Your task to perform on an android device: Open calendar and show me the fourth week of next month Image 0: 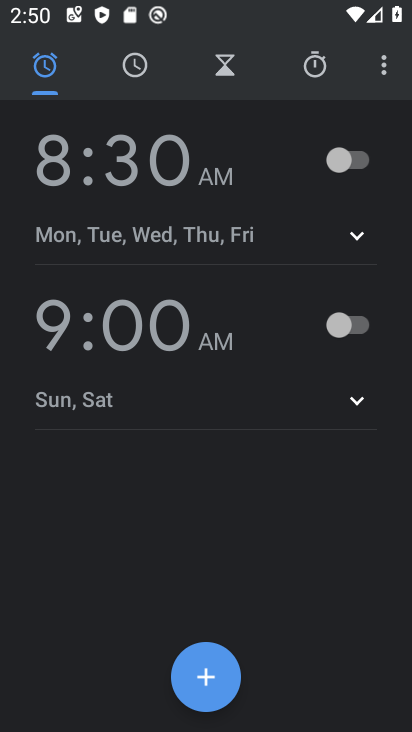
Step 0: press home button
Your task to perform on an android device: Open calendar and show me the fourth week of next month Image 1: 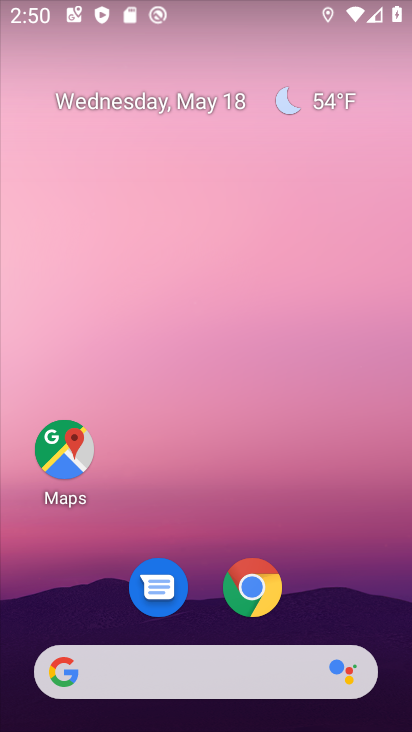
Step 1: drag from (200, 623) to (343, 230)
Your task to perform on an android device: Open calendar and show me the fourth week of next month Image 2: 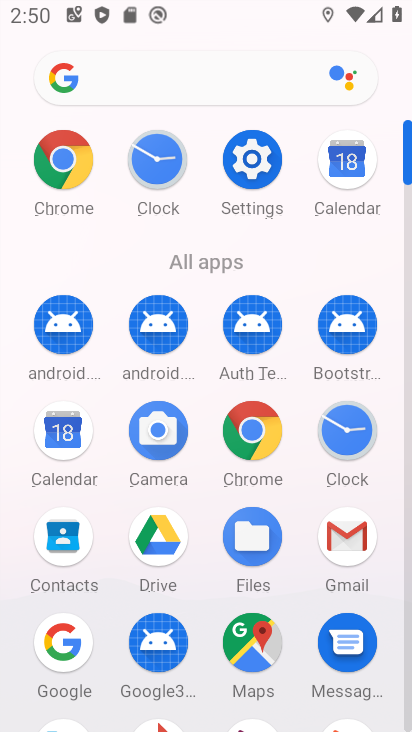
Step 2: drag from (340, 162) to (346, 263)
Your task to perform on an android device: Open calendar and show me the fourth week of next month Image 3: 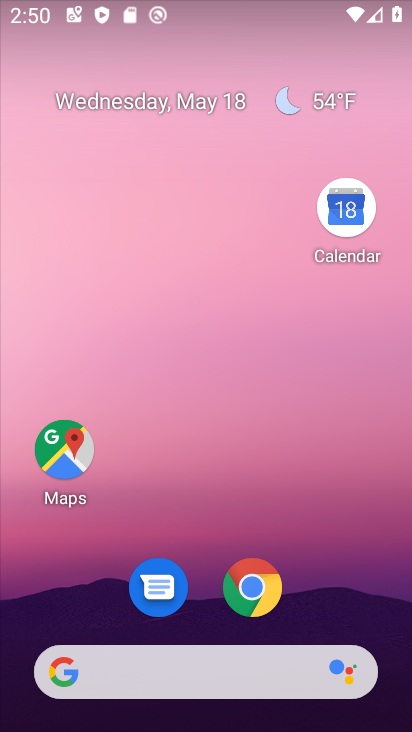
Step 3: click (330, 225)
Your task to perform on an android device: Open calendar and show me the fourth week of next month Image 4: 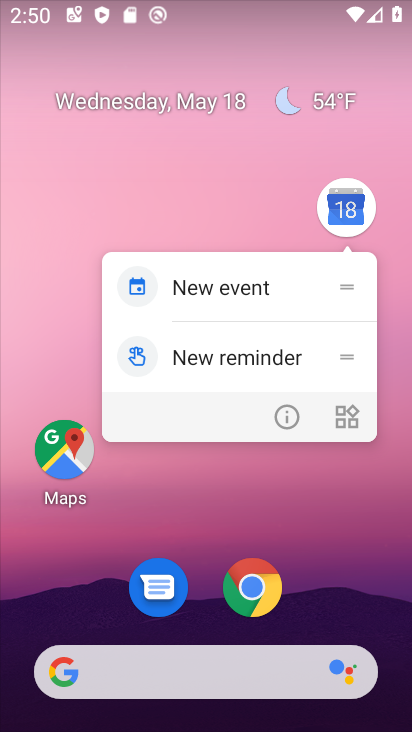
Step 4: click (270, 422)
Your task to perform on an android device: Open calendar and show me the fourth week of next month Image 5: 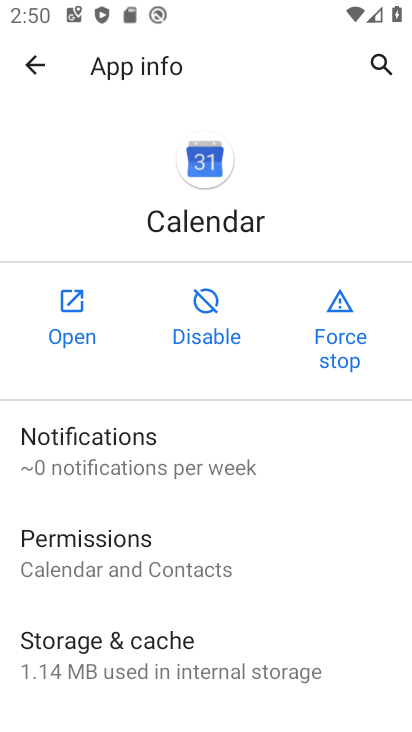
Step 5: click (67, 308)
Your task to perform on an android device: Open calendar and show me the fourth week of next month Image 6: 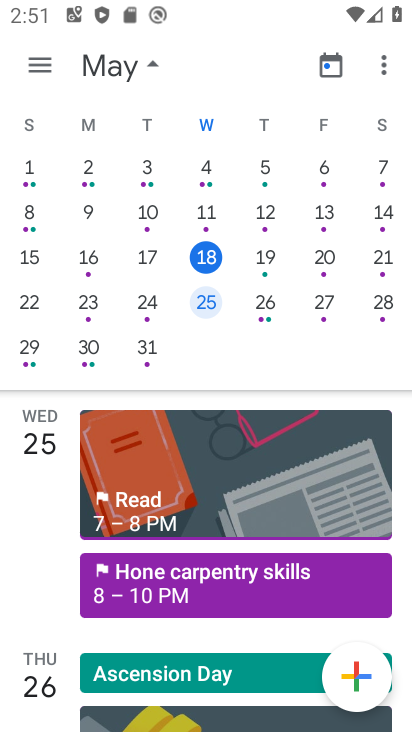
Step 6: drag from (385, 275) to (0, 285)
Your task to perform on an android device: Open calendar and show me the fourth week of next month Image 7: 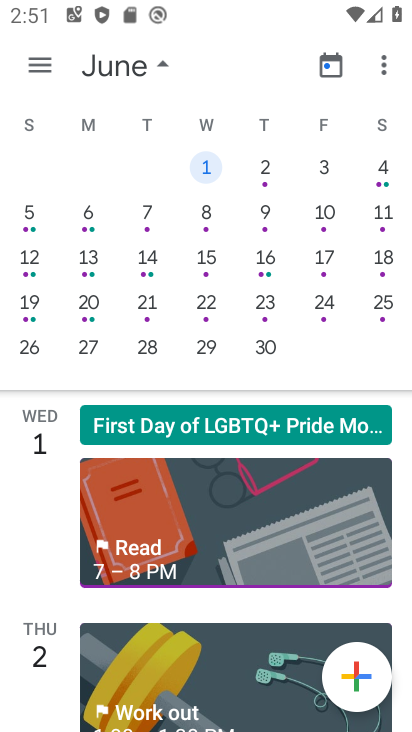
Step 7: click (206, 295)
Your task to perform on an android device: Open calendar and show me the fourth week of next month Image 8: 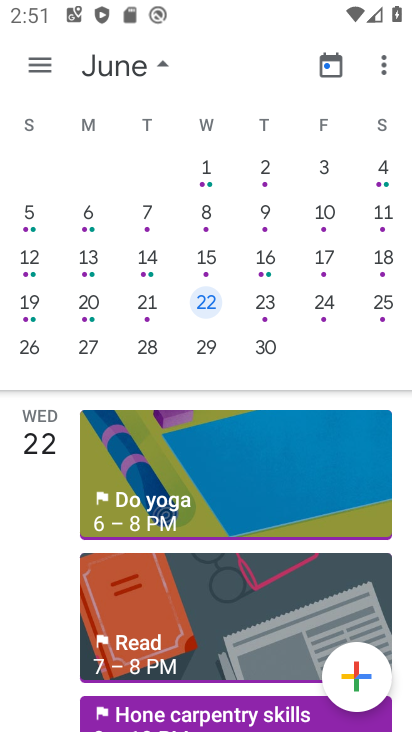
Step 8: drag from (235, 628) to (328, 266)
Your task to perform on an android device: Open calendar and show me the fourth week of next month Image 9: 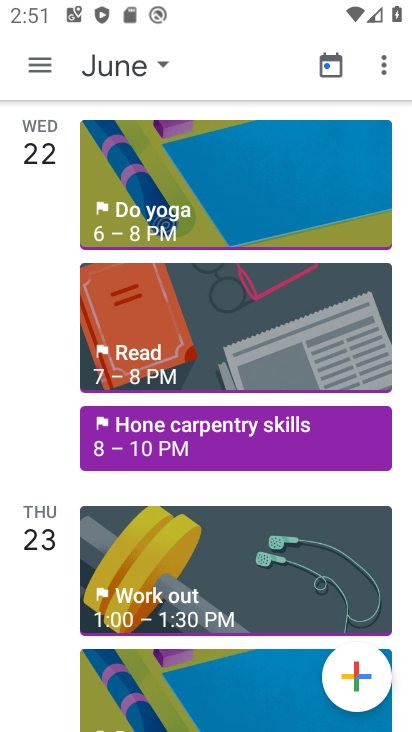
Step 9: click (163, 74)
Your task to perform on an android device: Open calendar and show me the fourth week of next month Image 10: 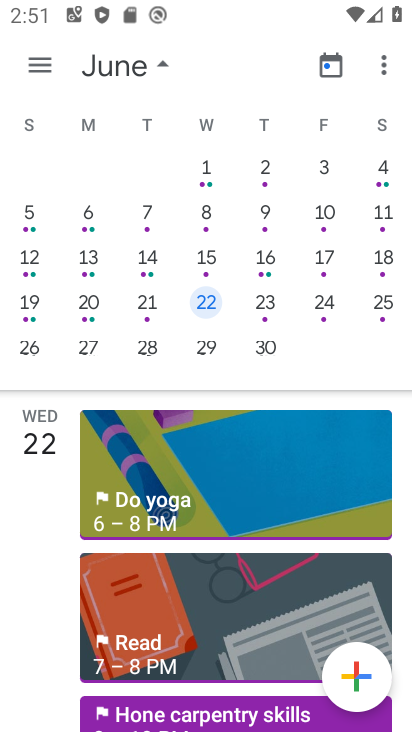
Step 10: click (205, 308)
Your task to perform on an android device: Open calendar and show me the fourth week of next month Image 11: 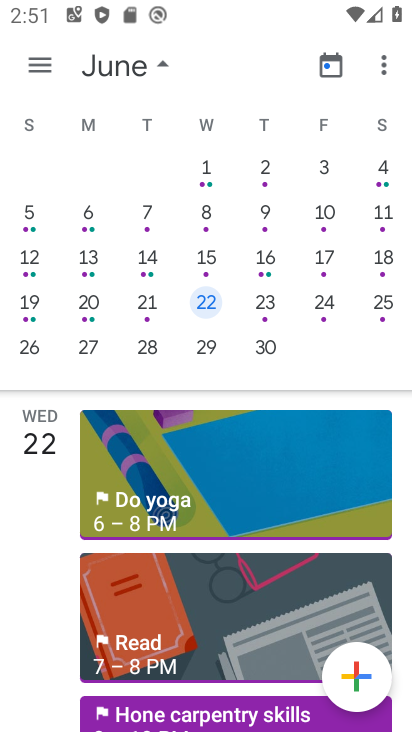
Step 11: task complete